Your task to perform on an android device: Show the shopping cart on costco.com. Add lenovo thinkpad to the cart on costco.com, then select checkout. Image 0: 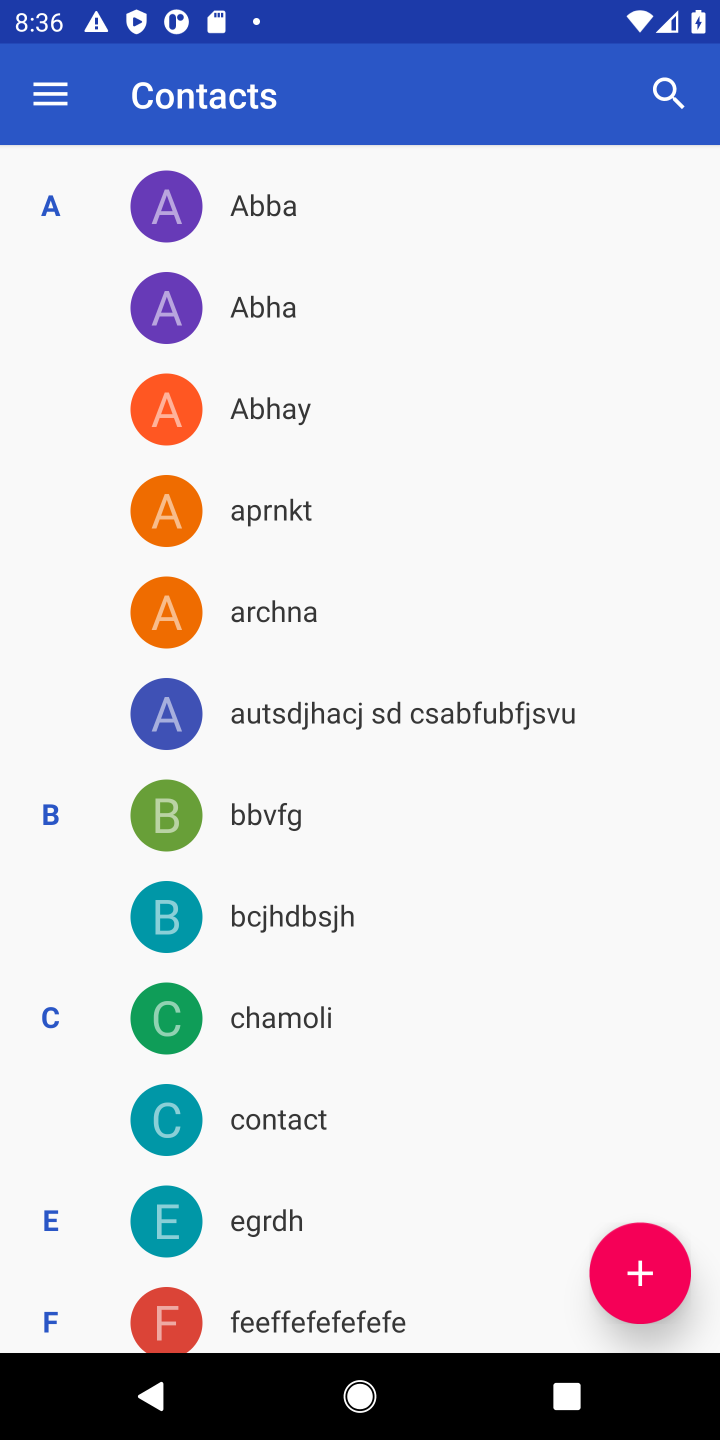
Step 0: press home button
Your task to perform on an android device: Show the shopping cart on costco.com. Add lenovo thinkpad to the cart on costco.com, then select checkout. Image 1: 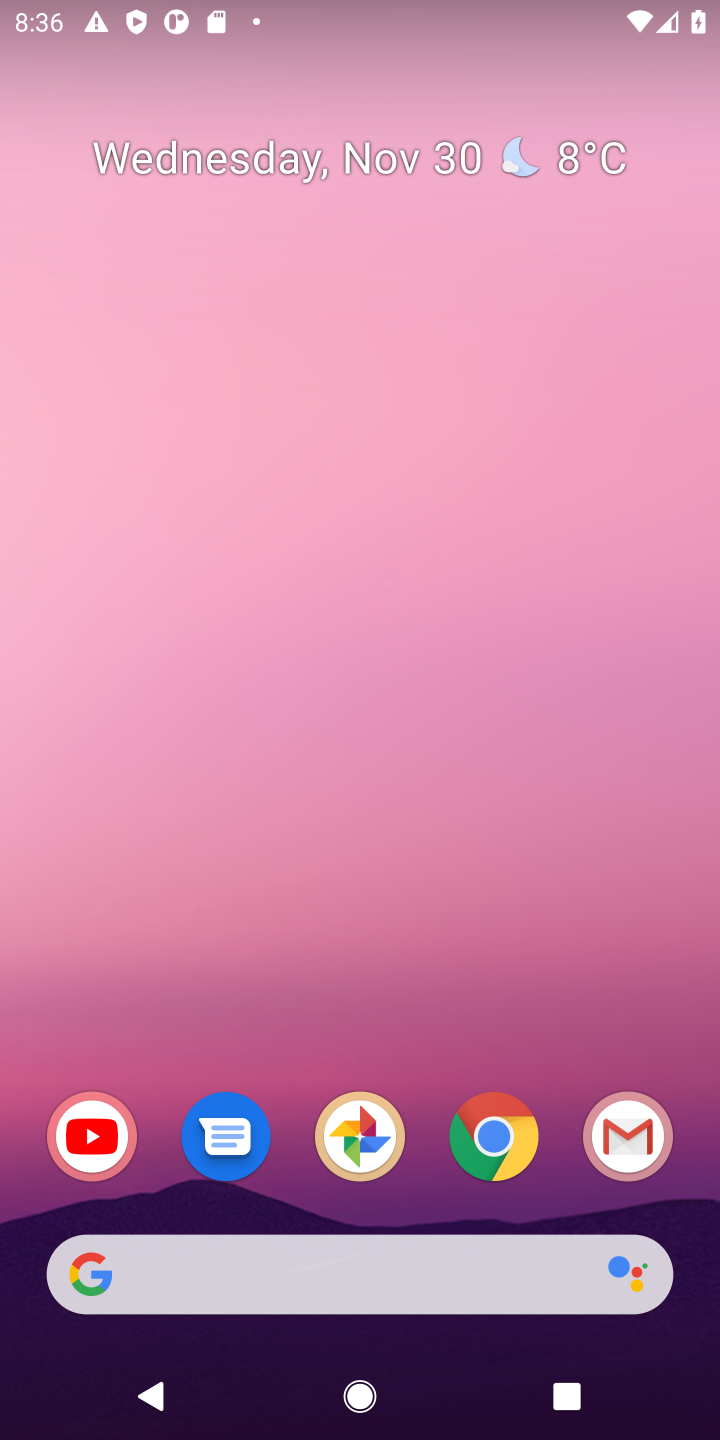
Step 1: click (496, 1144)
Your task to perform on an android device: Show the shopping cart on costco.com. Add lenovo thinkpad to the cart on costco.com, then select checkout. Image 2: 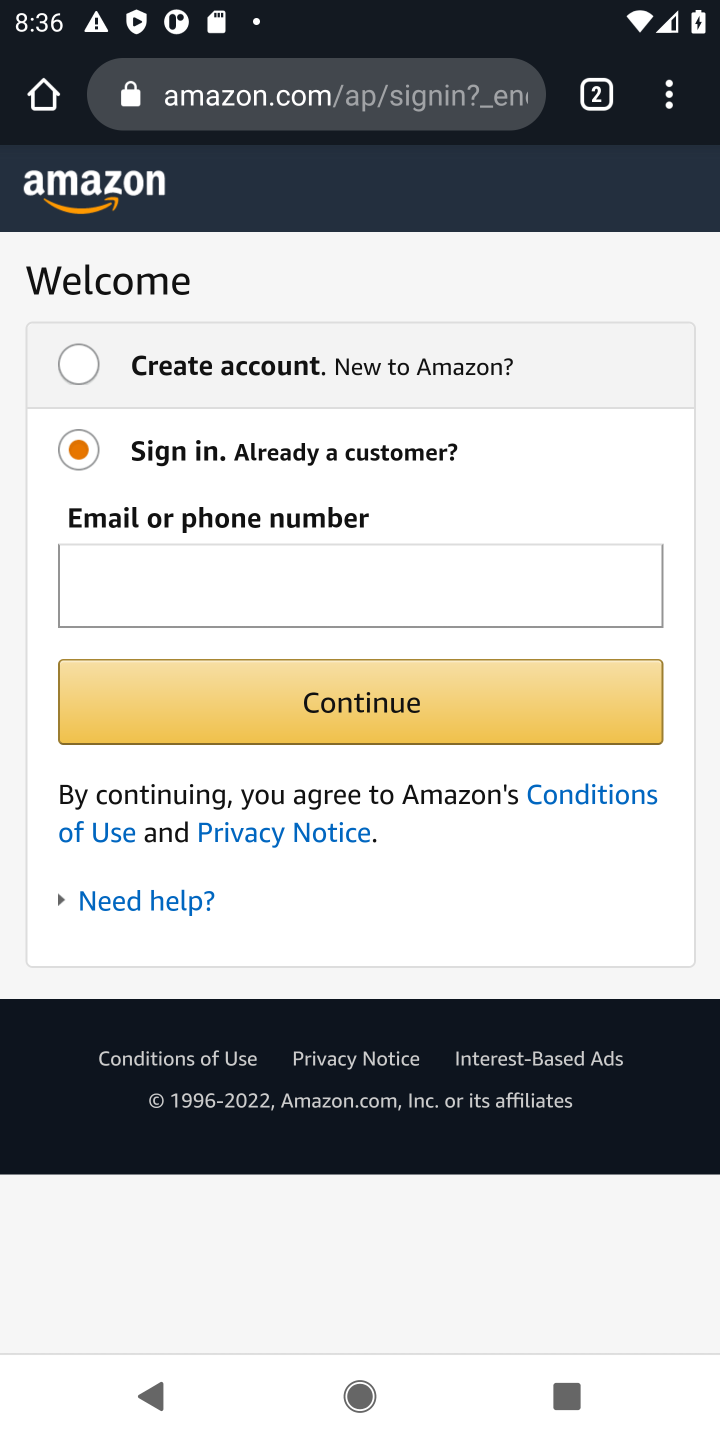
Step 2: click (300, 104)
Your task to perform on an android device: Show the shopping cart on costco.com. Add lenovo thinkpad to the cart on costco.com, then select checkout. Image 3: 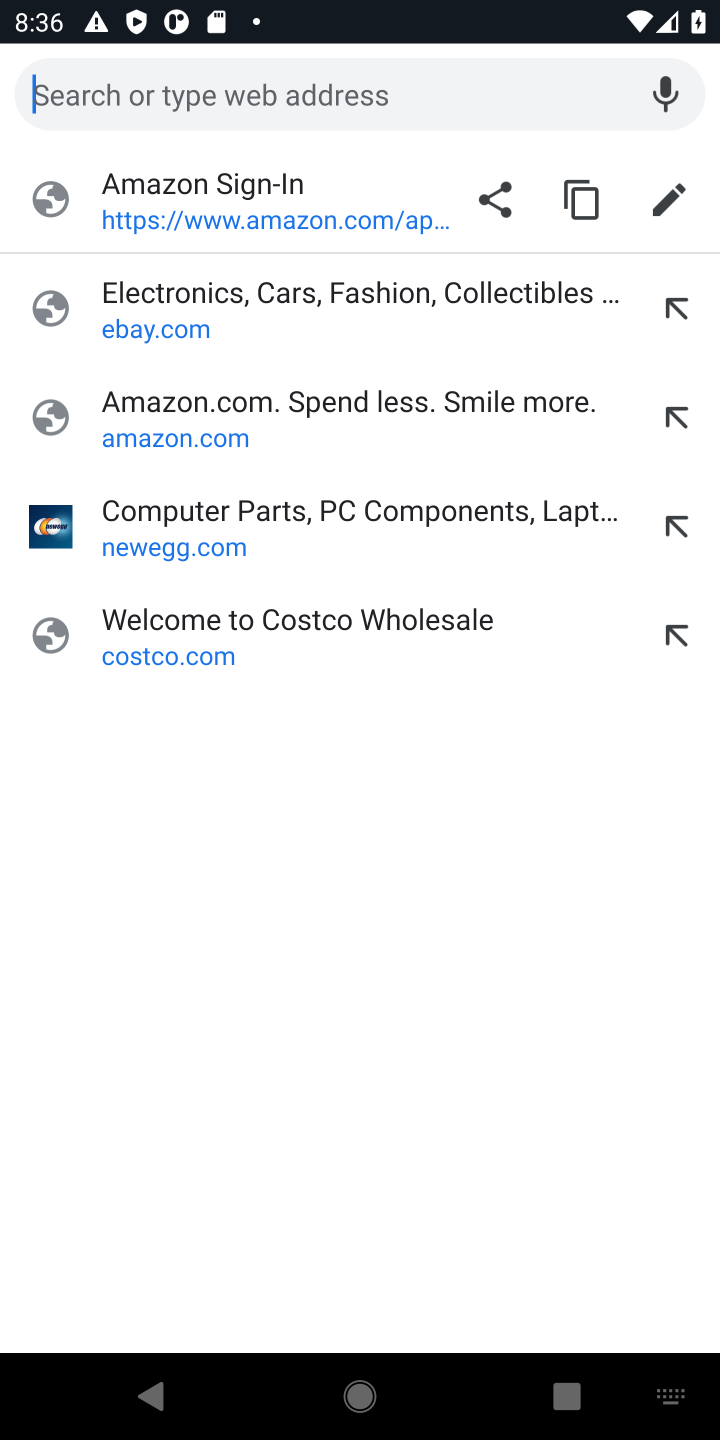
Step 3: click (159, 636)
Your task to perform on an android device: Show the shopping cart on costco.com. Add lenovo thinkpad to the cart on costco.com, then select checkout. Image 4: 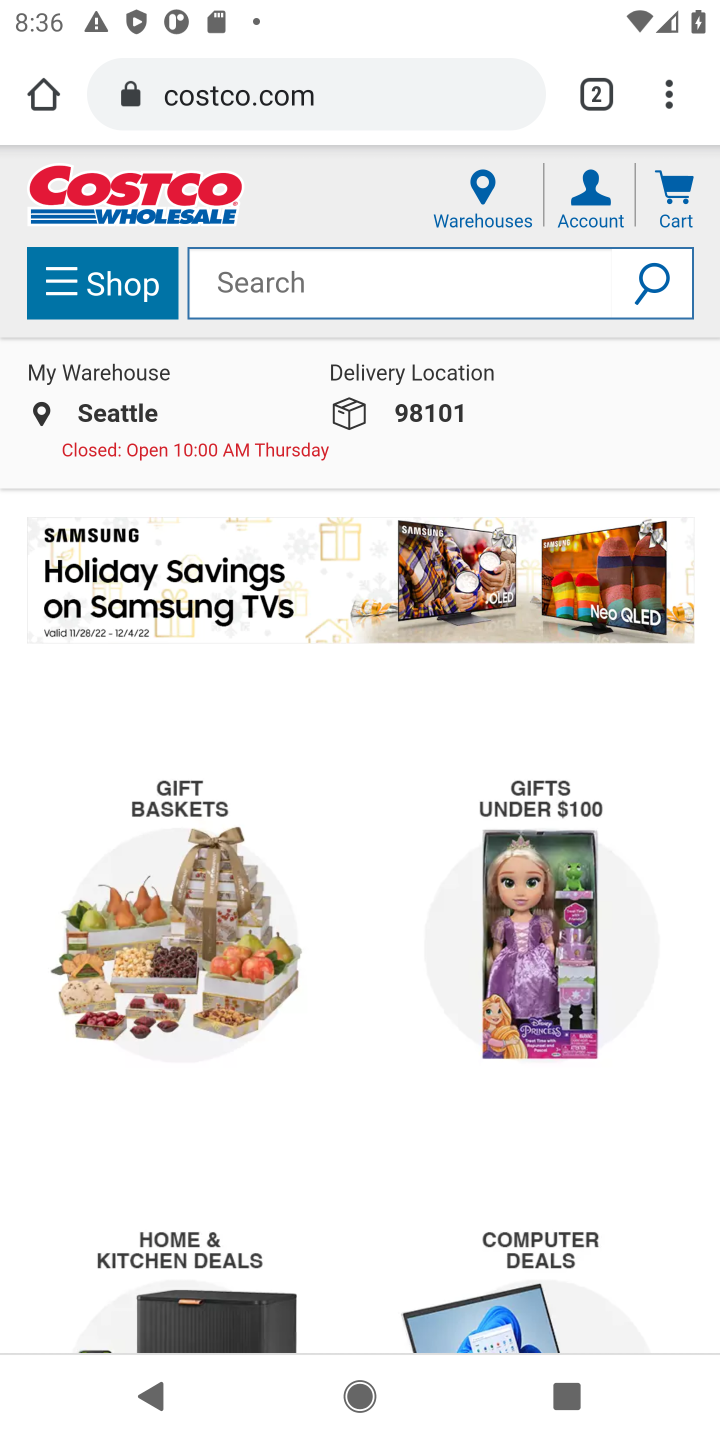
Step 4: click (671, 176)
Your task to perform on an android device: Show the shopping cart on costco.com. Add lenovo thinkpad to the cart on costco.com, then select checkout. Image 5: 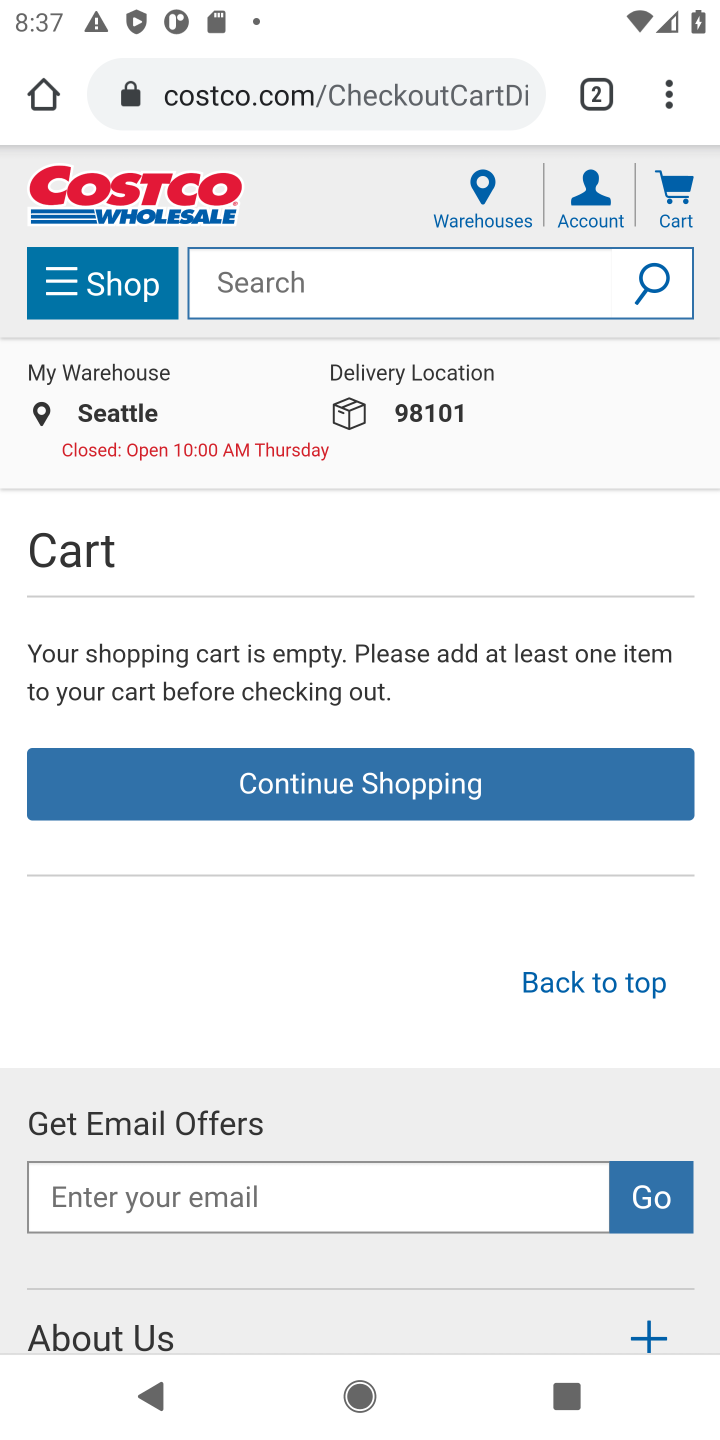
Step 5: click (273, 278)
Your task to perform on an android device: Show the shopping cart on costco.com. Add lenovo thinkpad to the cart on costco.com, then select checkout. Image 6: 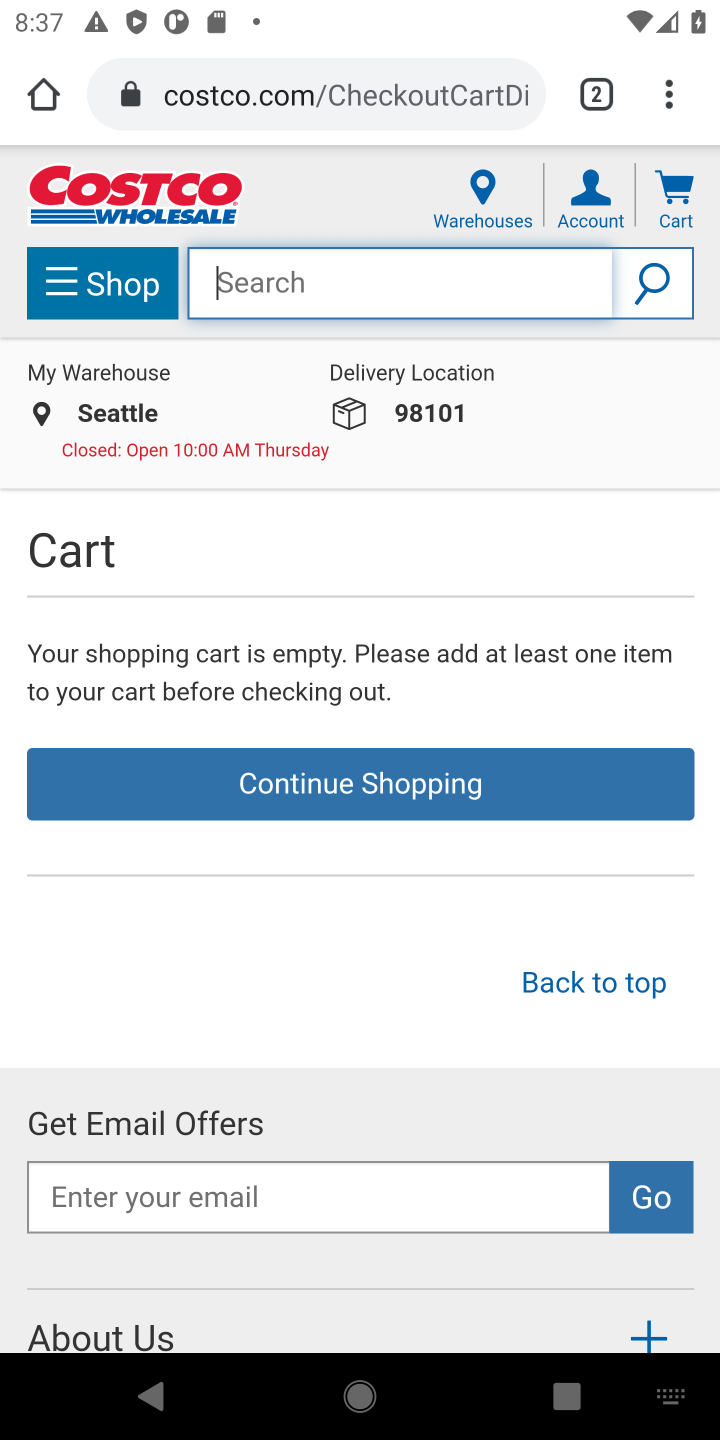
Step 6: type " lenovo thinkpad"
Your task to perform on an android device: Show the shopping cart on costco.com. Add lenovo thinkpad to the cart on costco.com, then select checkout. Image 7: 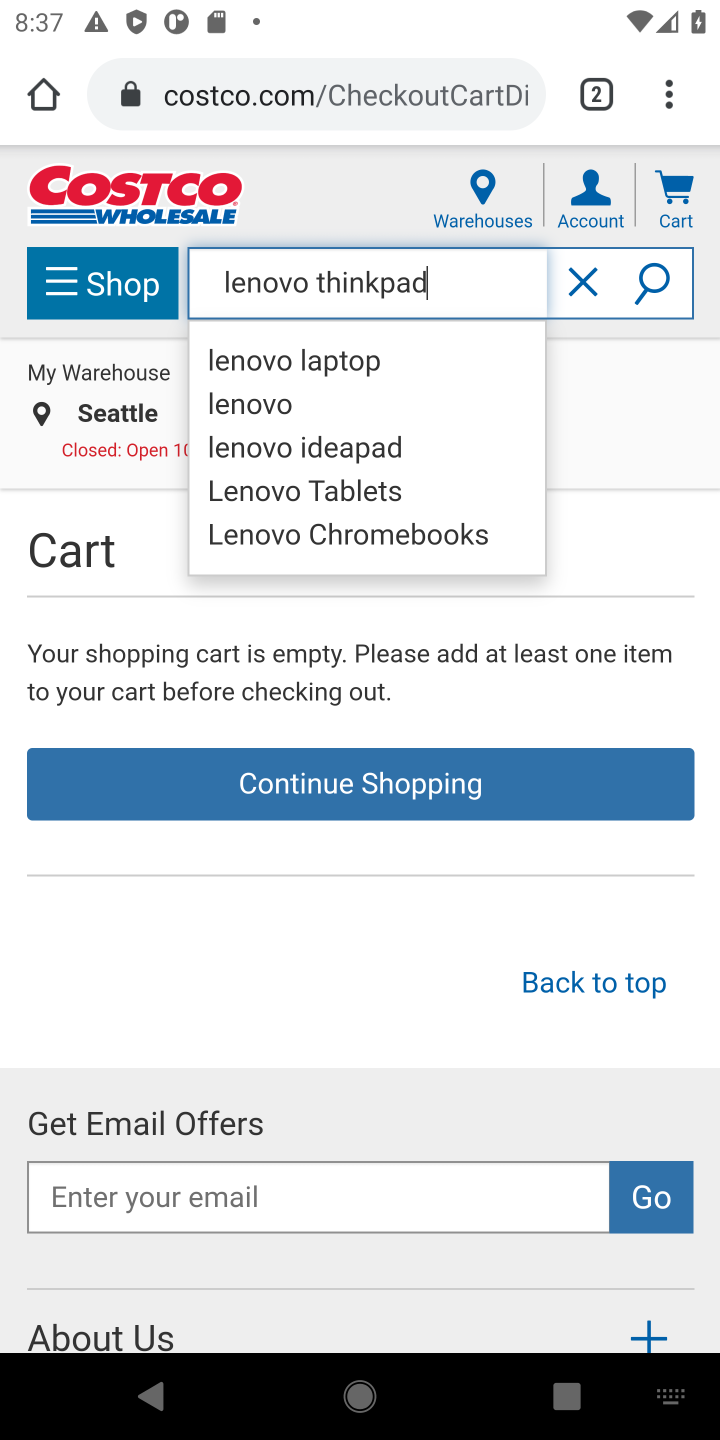
Step 7: click (647, 285)
Your task to perform on an android device: Show the shopping cart on costco.com. Add lenovo thinkpad to the cart on costco.com, then select checkout. Image 8: 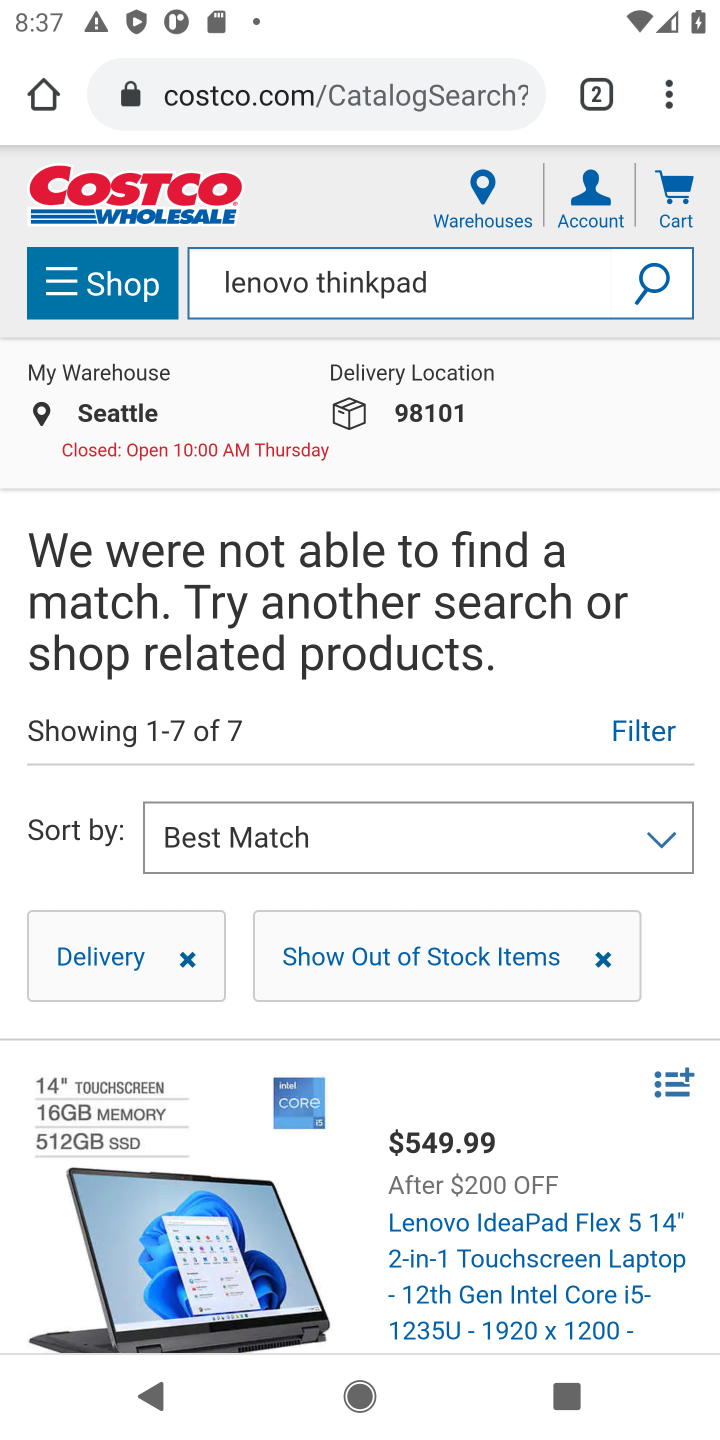
Step 8: task complete